Your task to perform on an android device: uninstall "DoorDash - Food Delivery" Image 0: 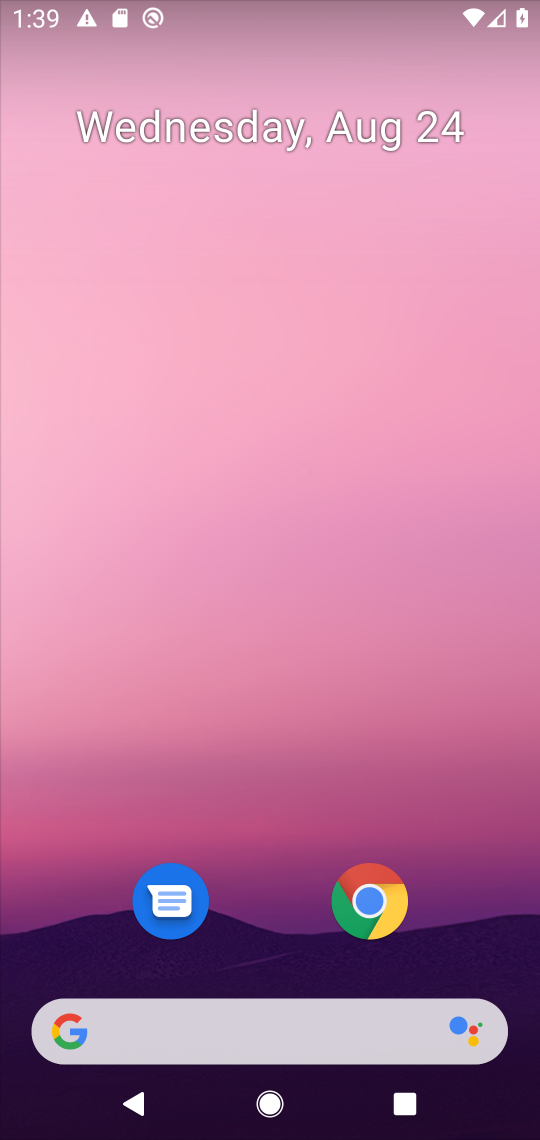
Step 0: drag from (273, 979) to (339, 103)
Your task to perform on an android device: uninstall "DoorDash - Food Delivery" Image 1: 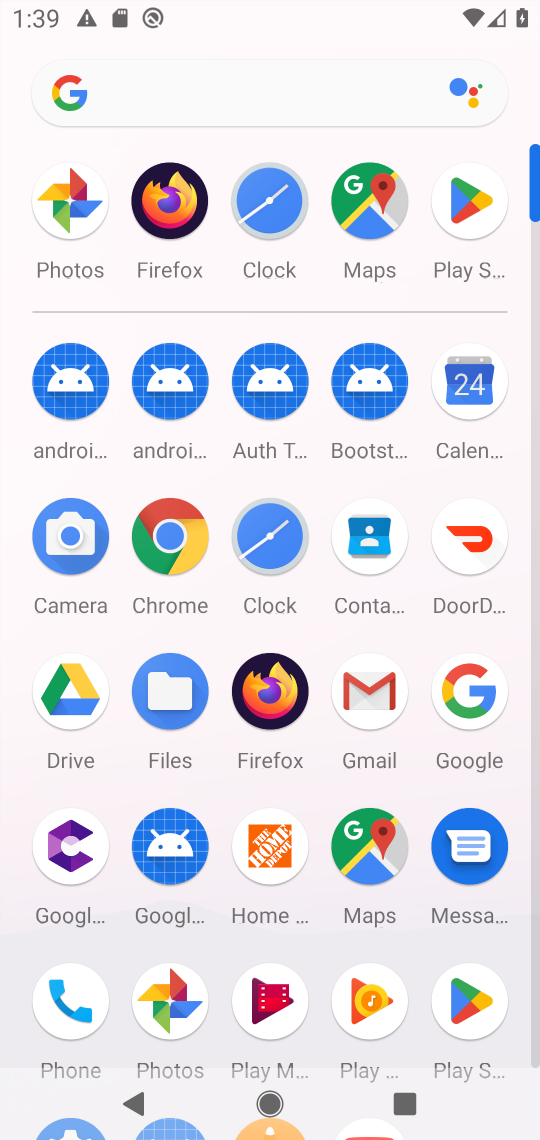
Step 1: click (467, 208)
Your task to perform on an android device: uninstall "DoorDash - Food Delivery" Image 2: 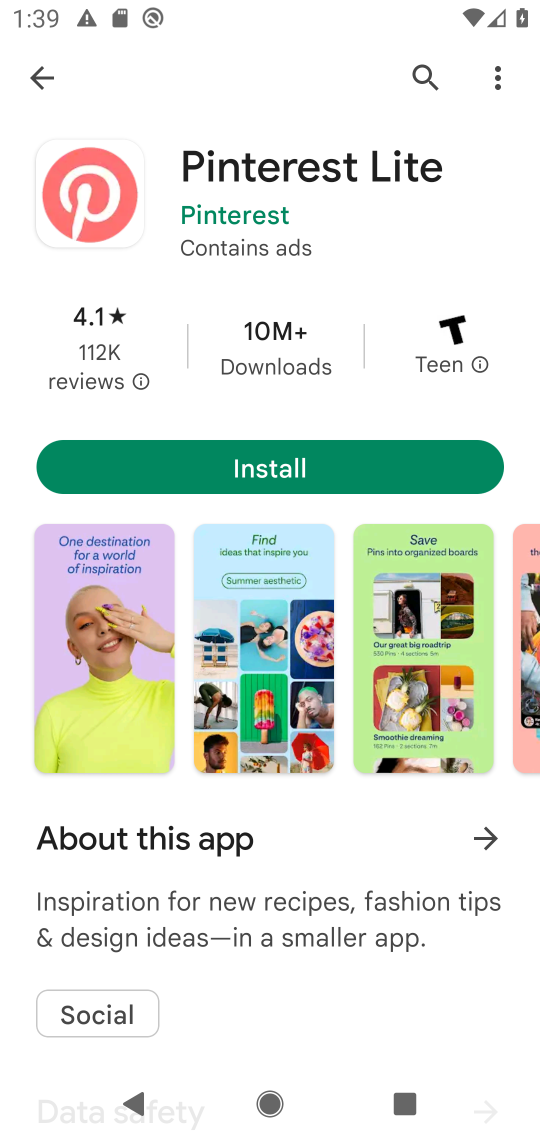
Step 2: click (421, 73)
Your task to perform on an android device: uninstall "DoorDash - Food Delivery" Image 3: 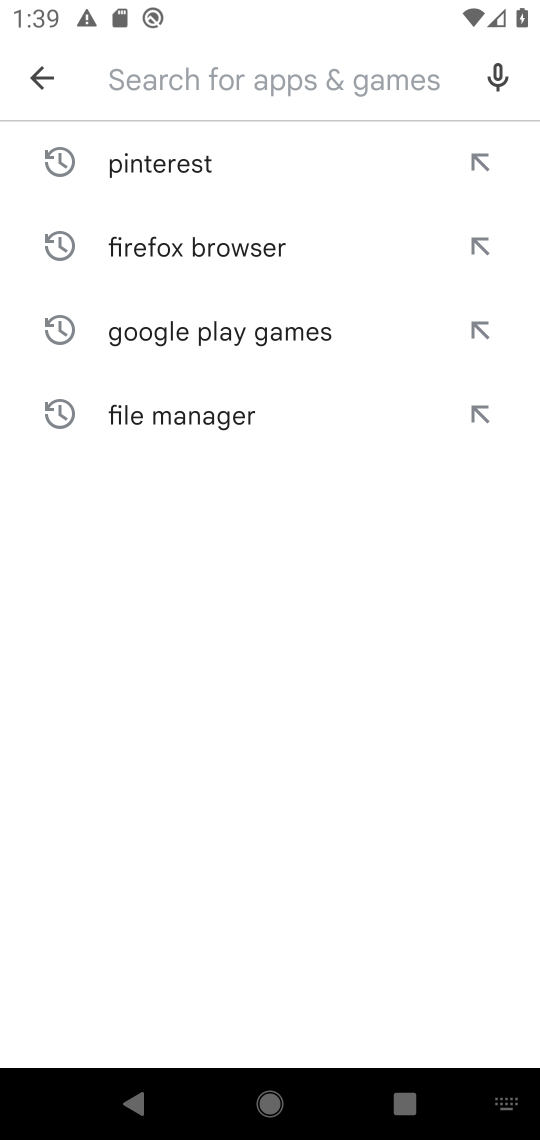
Step 3: click (257, 72)
Your task to perform on an android device: uninstall "DoorDash - Food Delivery" Image 4: 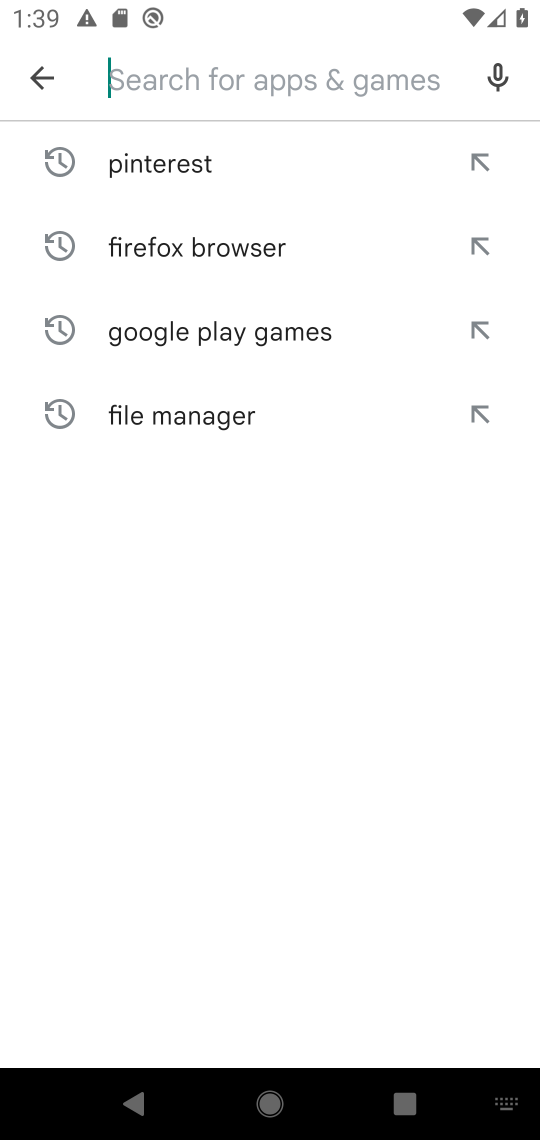
Step 4: type "DoorDash - Food Delivery"
Your task to perform on an android device: uninstall "DoorDash - Food Delivery" Image 5: 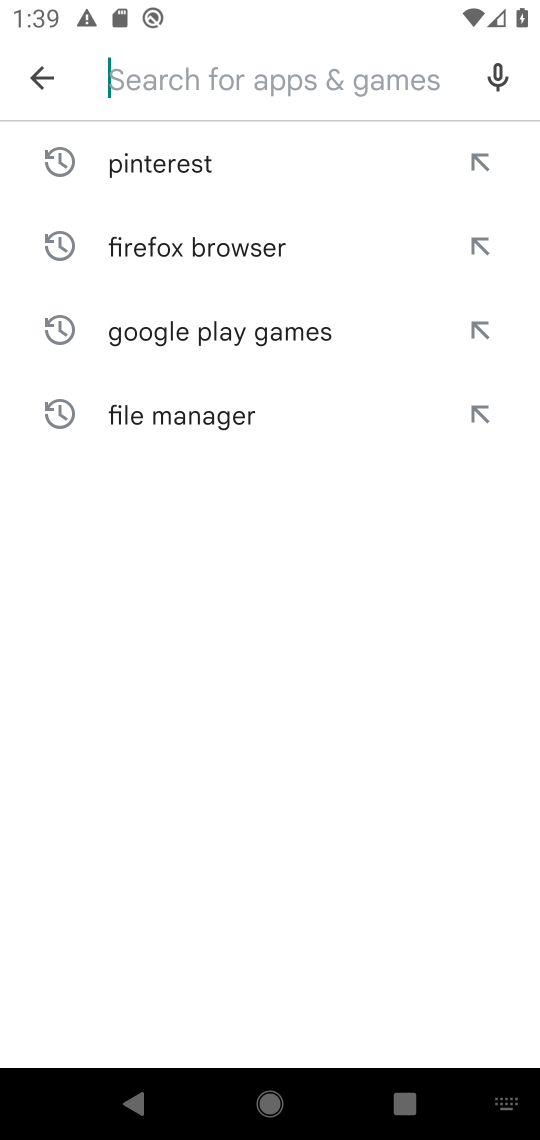
Step 5: click (204, 710)
Your task to perform on an android device: uninstall "DoorDash - Food Delivery" Image 6: 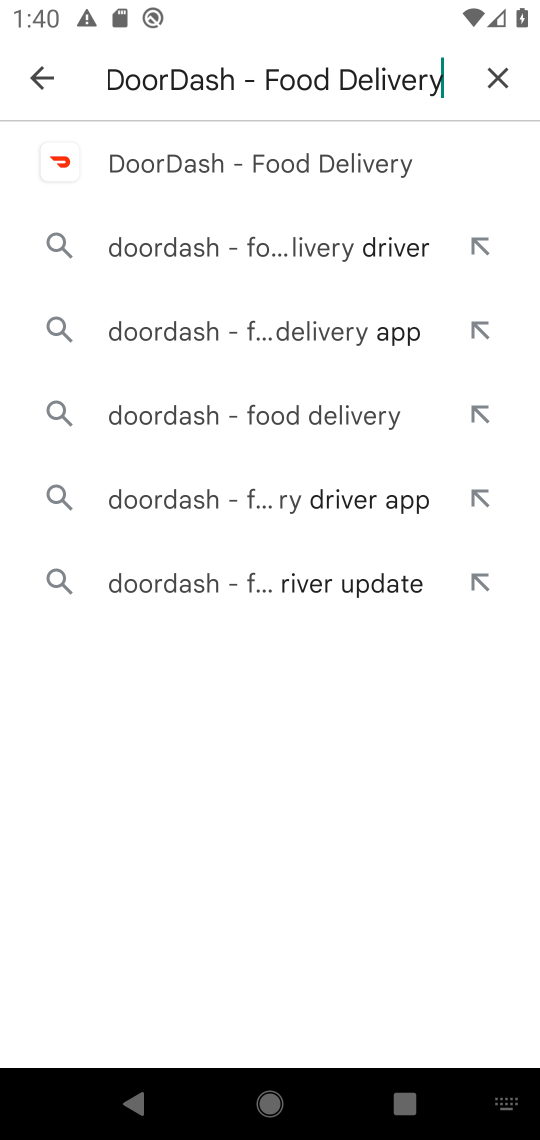
Step 6: click (305, 172)
Your task to perform on an android device: uninstall "DoorDash - Food Delivery" Image 7: 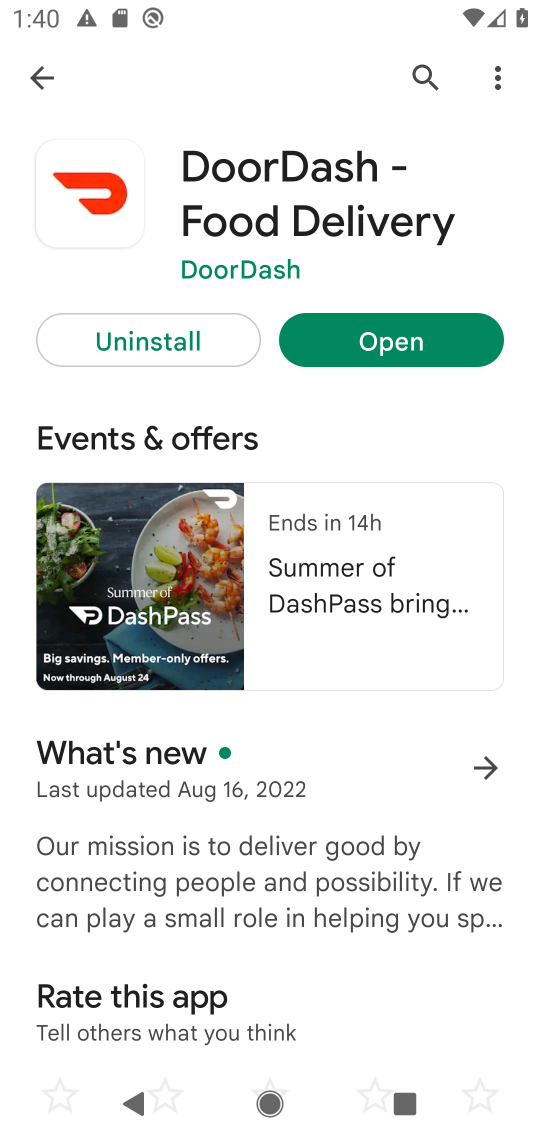
Step 7: click (172, 364)
Your task to perform on an android device: uninstall "DoorDash - Food Delivery" Image 8: 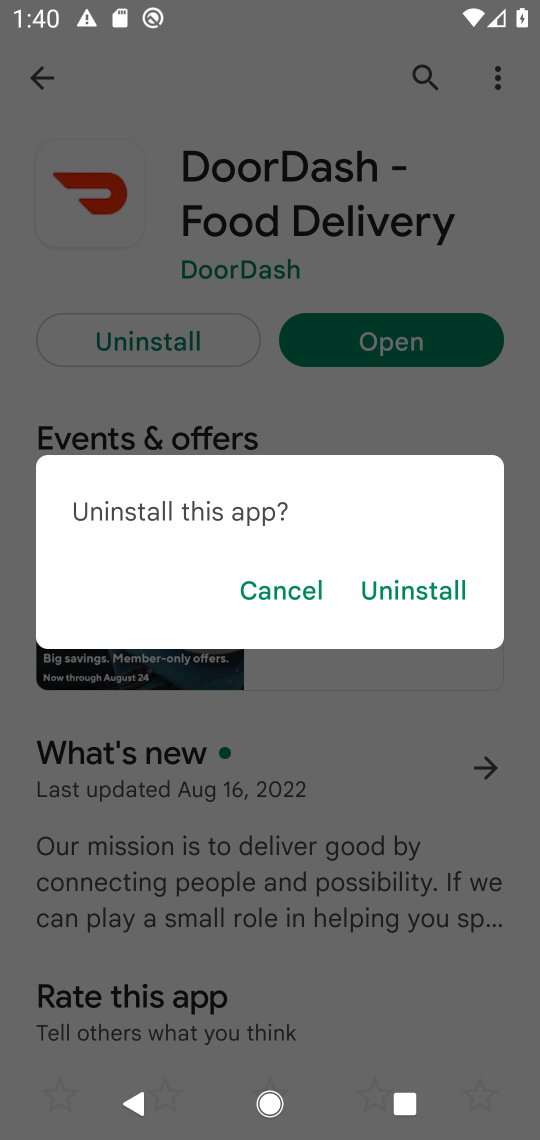
Step 8: click (413, 592)
Your task to perform on an android device: uninstall "DoorDash - Food Delivery" Image 9: 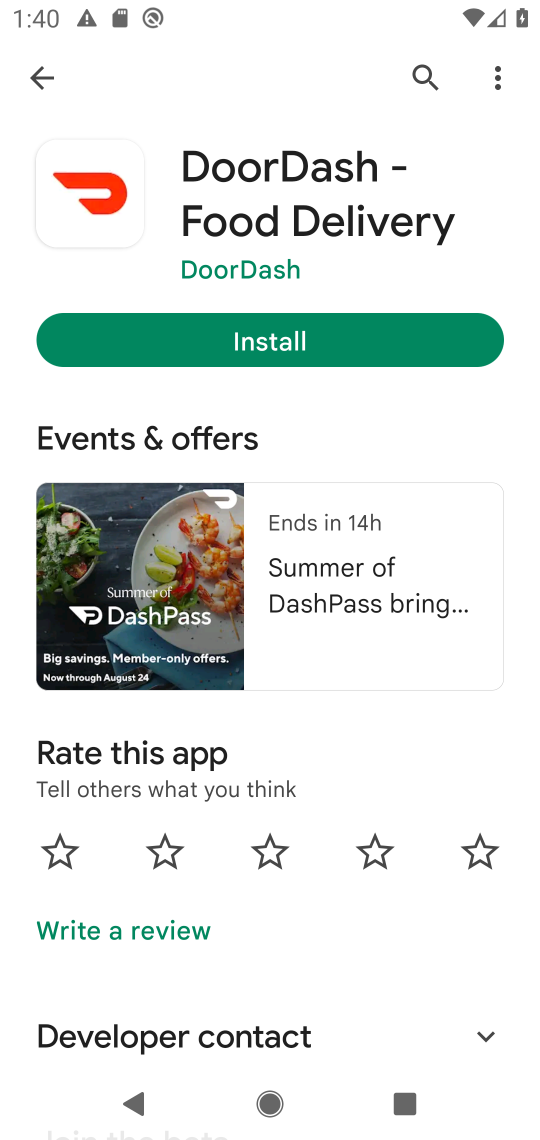
Step 9: task complete